Your task to perform on an android device: Search for pizza restaurants on Maps Image 0: 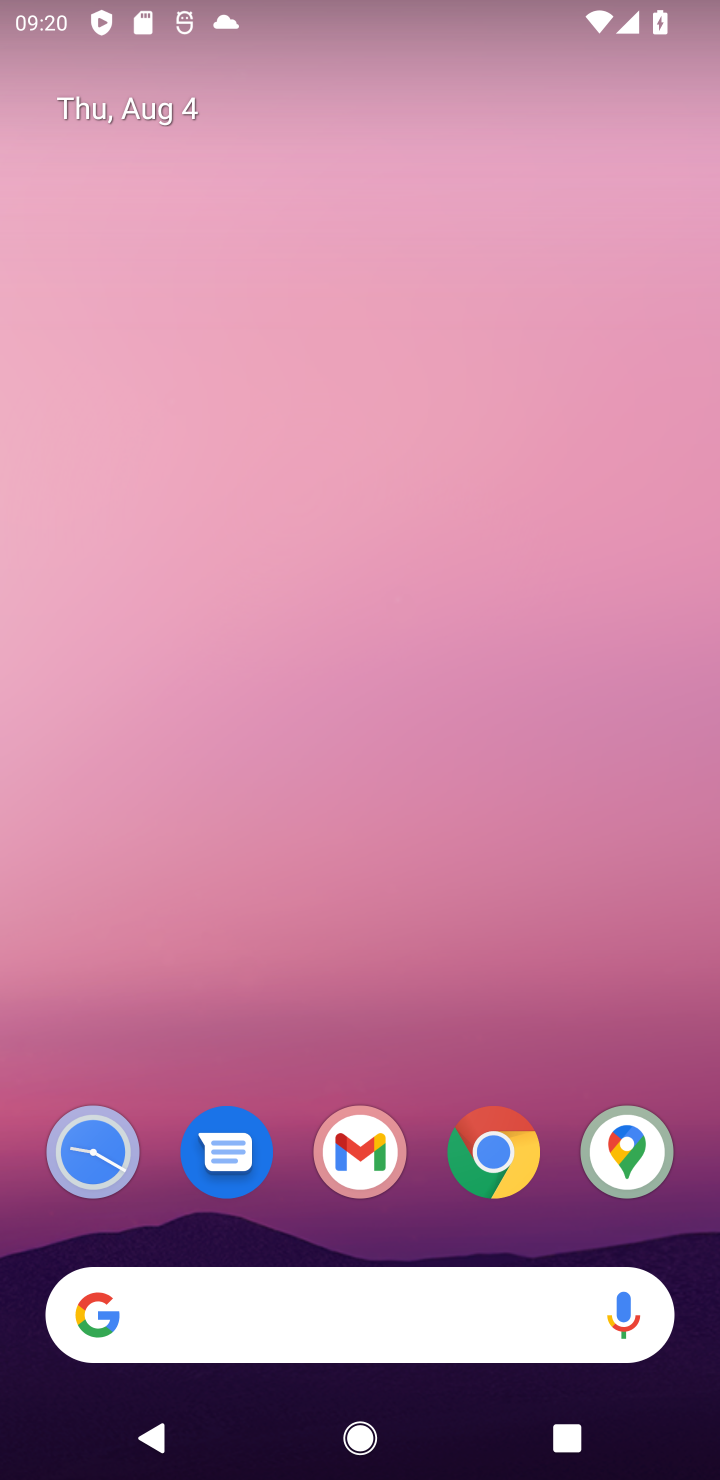
Step 0: press home button
Your task to perform on an android device: Search for pizza restaurants on Maps Image 1: 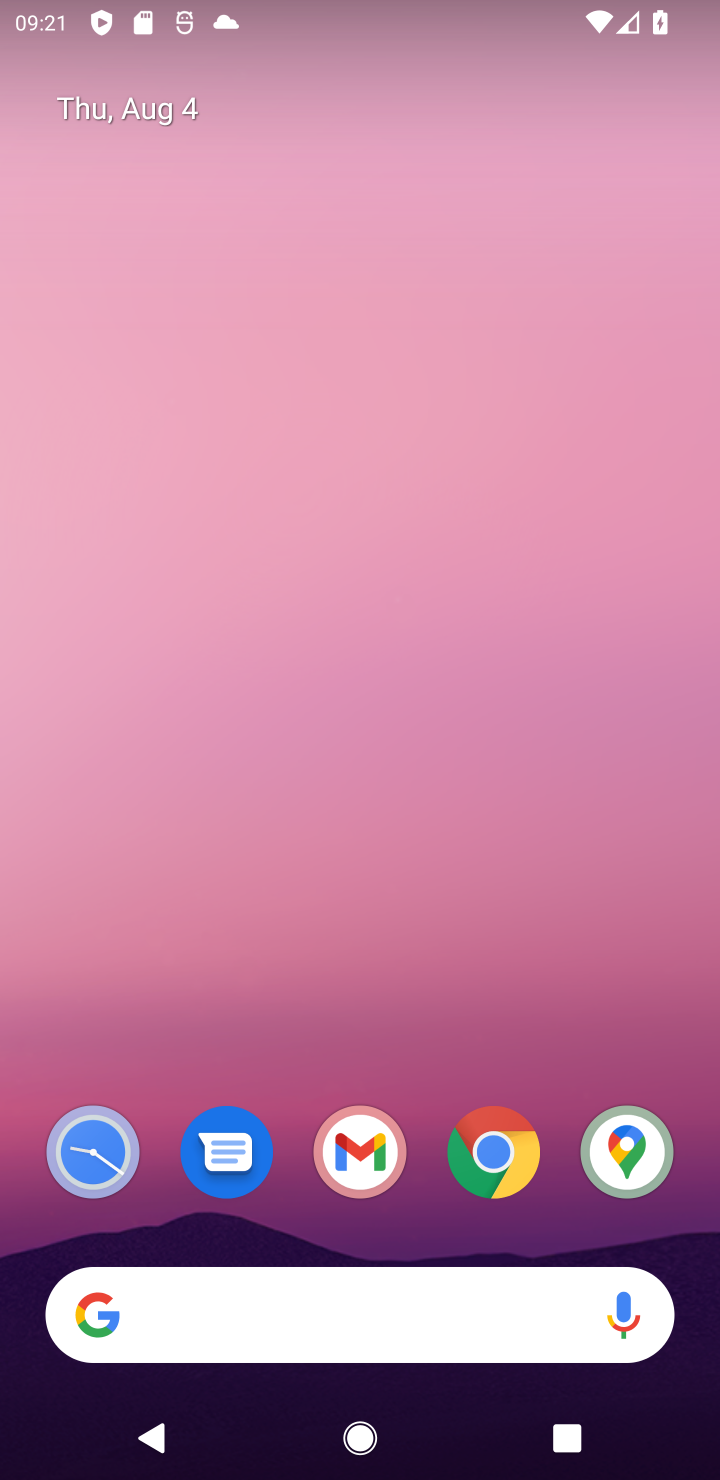
Step 1: click (626, 1174)
Your task to perform on an android device: Search for pizza restaurants on Maps Image 2: 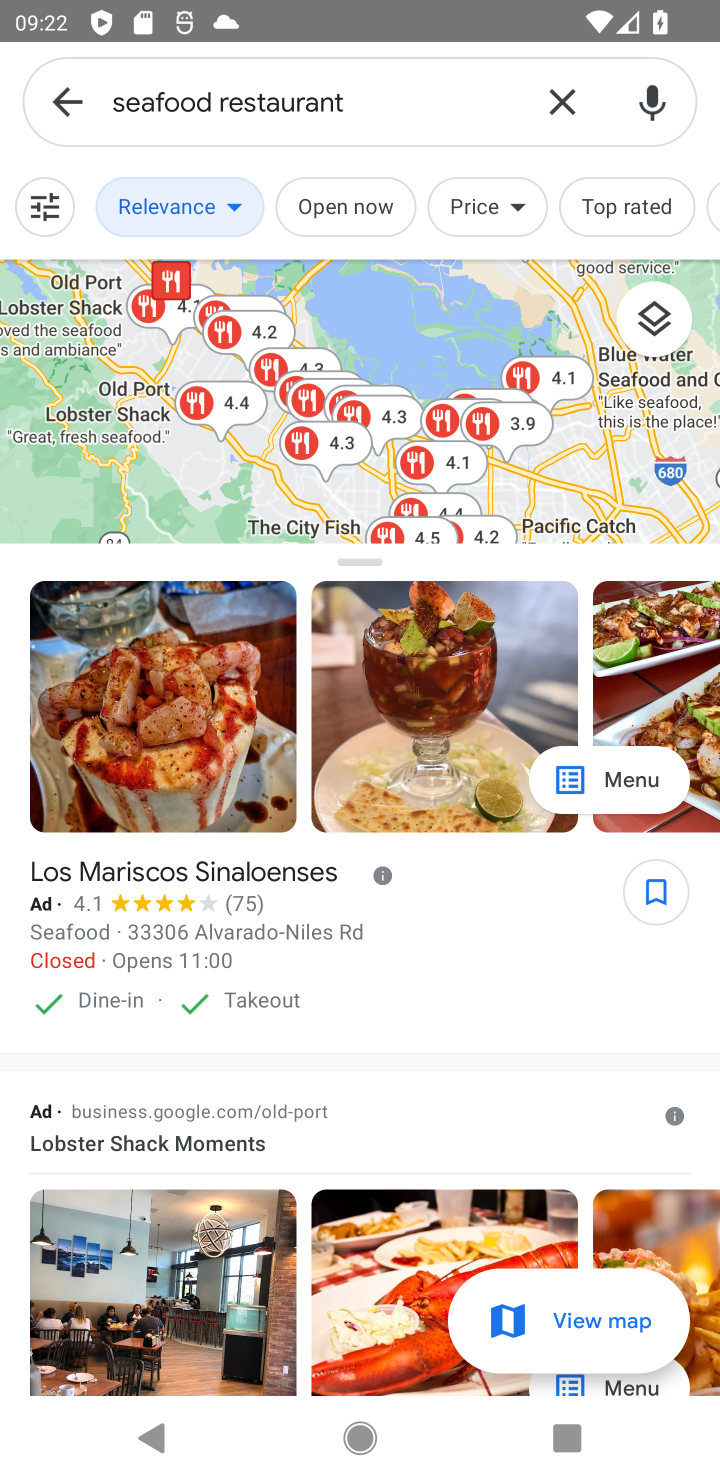
Step 2: click (574, 116)
Your task to perform on an android device: Search for pizza restaurants on Maps Image 3: 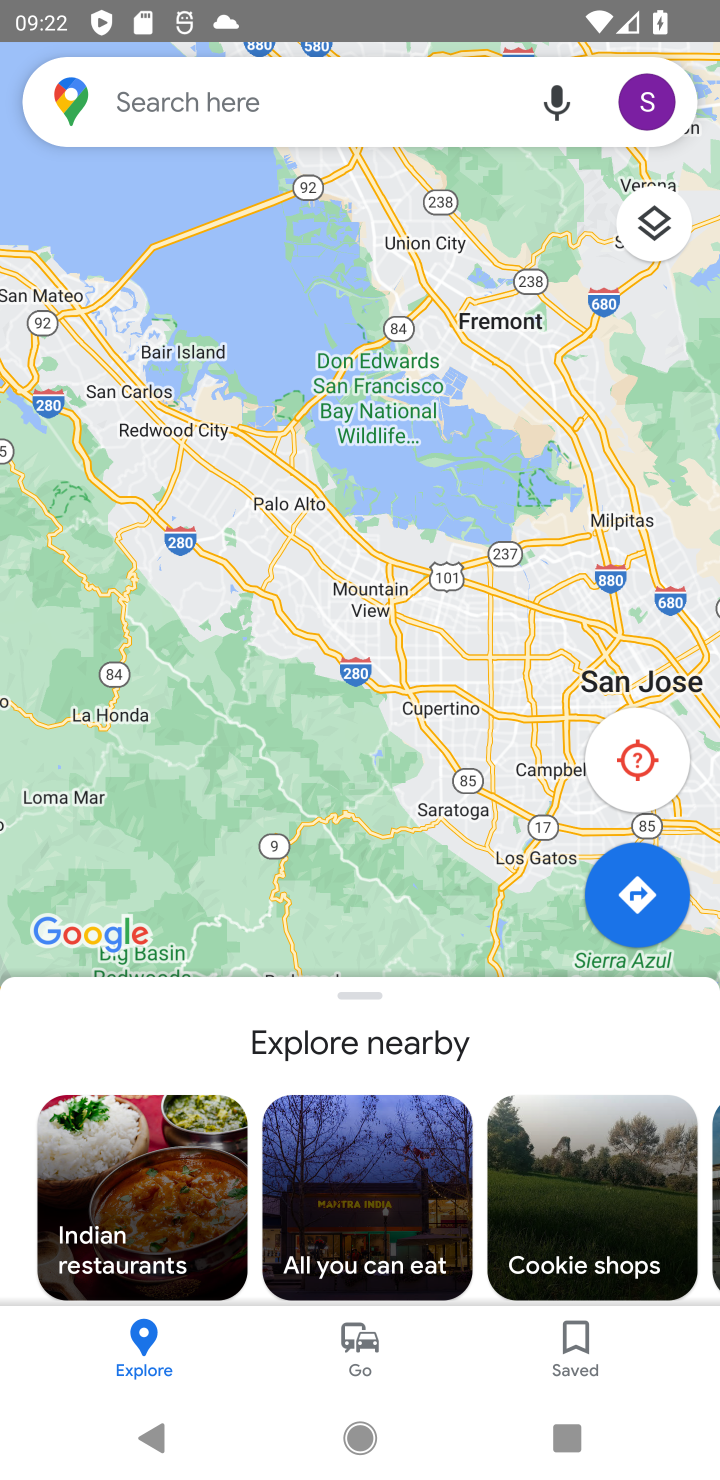
Step 3: click (399, 91)
Your task to perform on an android device: Search for pizza restaurants on Maps Image 4: 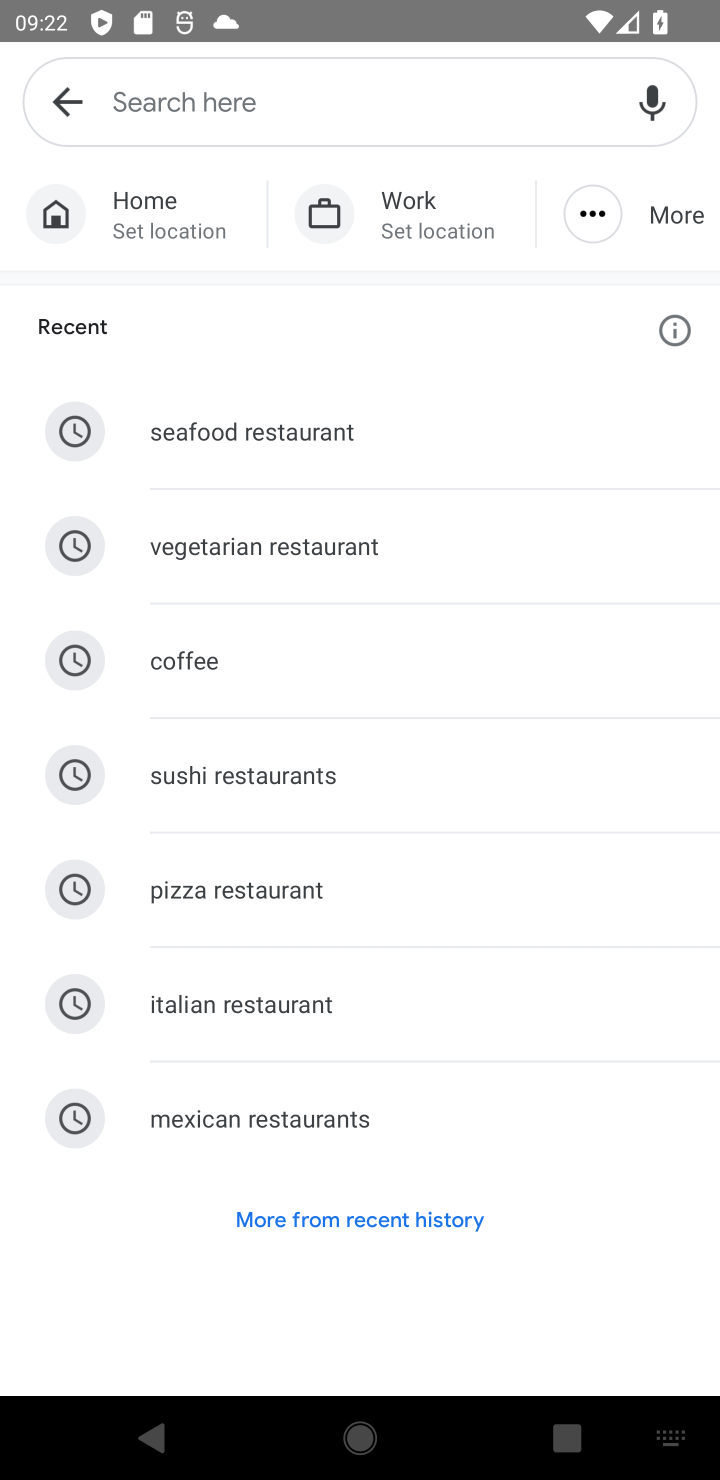
Step 4: click (173, 894)
Your task to perform on an android device: Search for pizza restaurants on Maps Image 5: 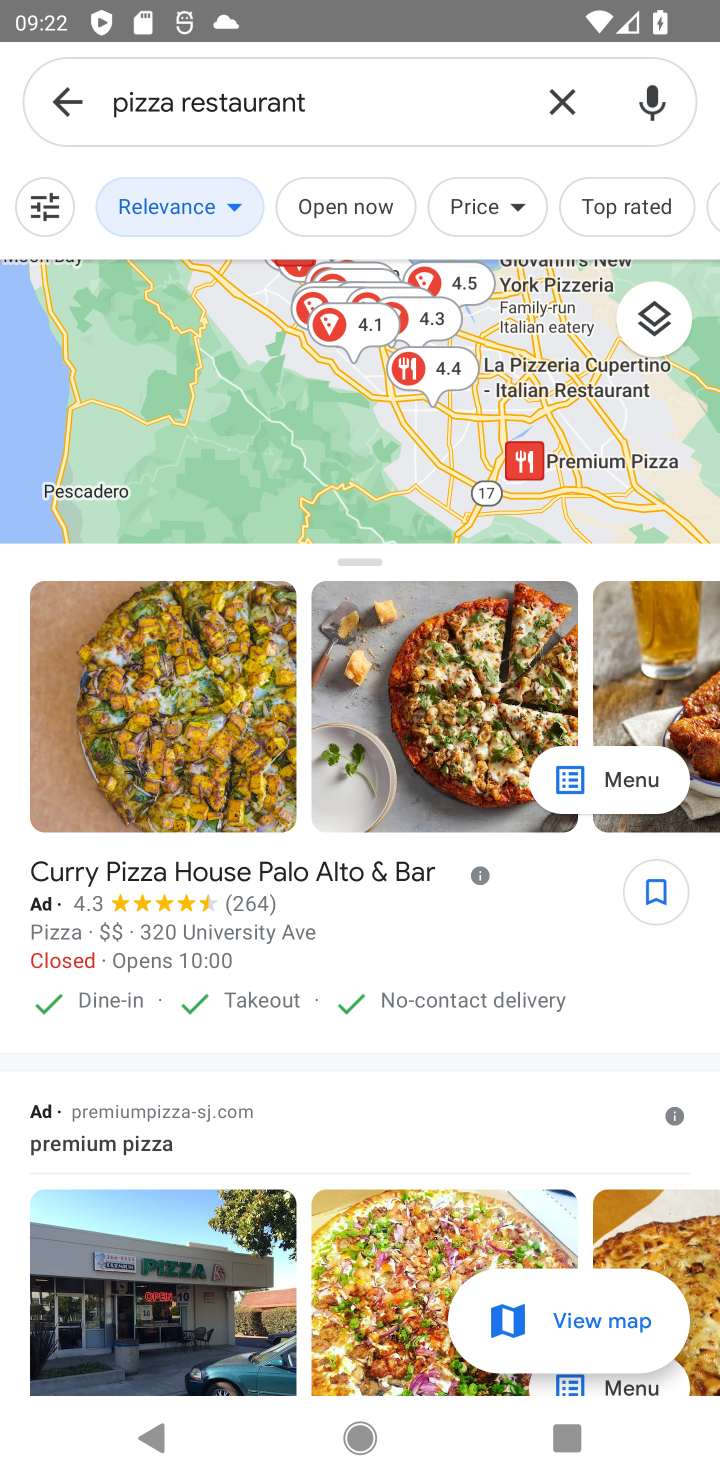
Step 5: task complete